Your task to perform on an android device: Go to CNN.com Image 0: 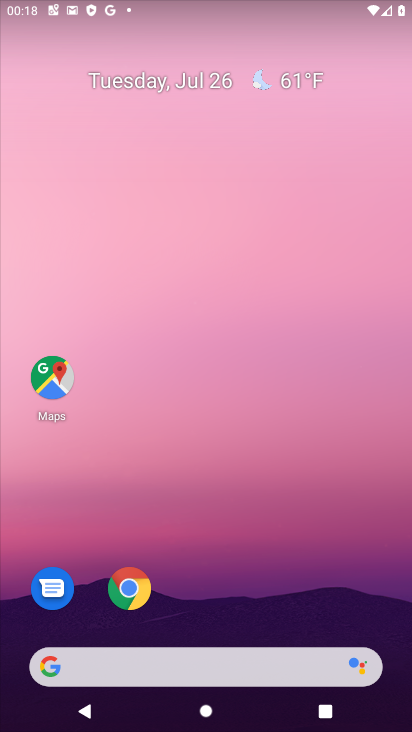
Step 0: drag from (218, 624) to (219, 76)
Your task to perform on an android device: Go to CNN.com Image 1: 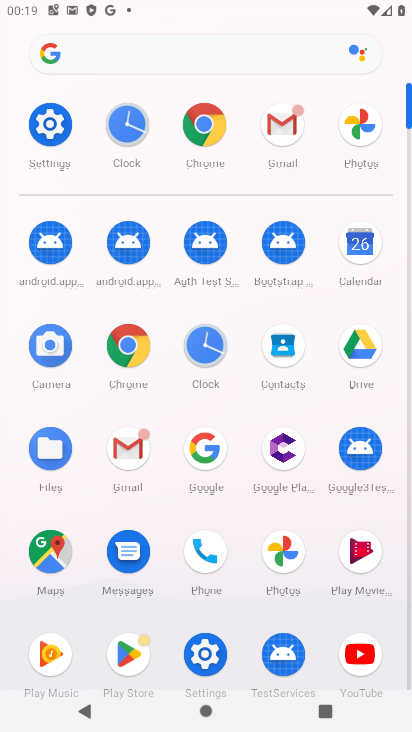
Step 1: click (202, 121)
Your task to perform on an android device: Go to CNN.com Image 2: 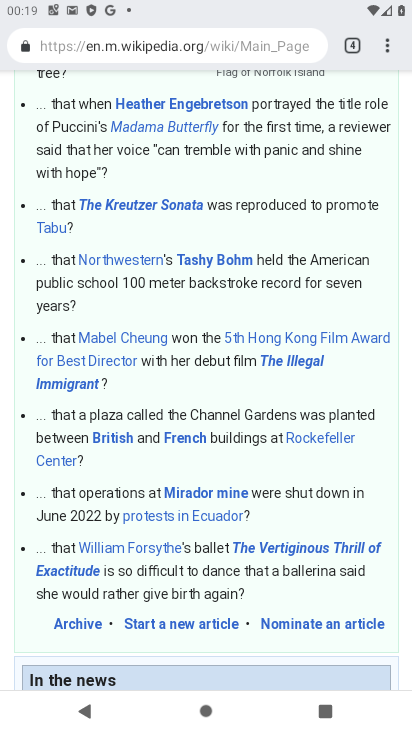
Step 2: click (346, 45)
Your task to perform on an android device: Go to CNN.com Image 3: 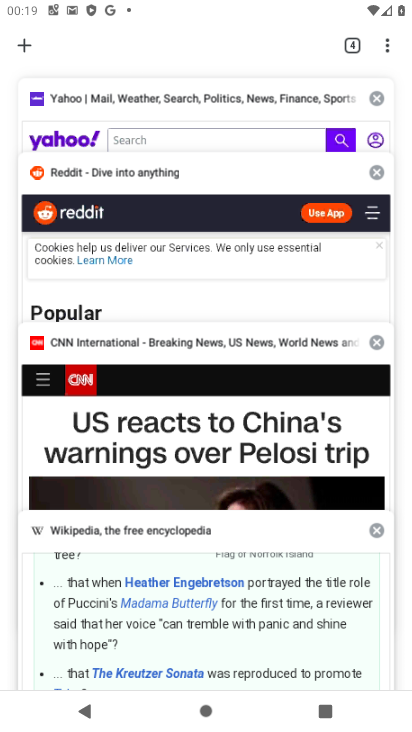
Step 3: click (24, 49)
Your task to perform on an android device: Go to CNN.com Image 4: 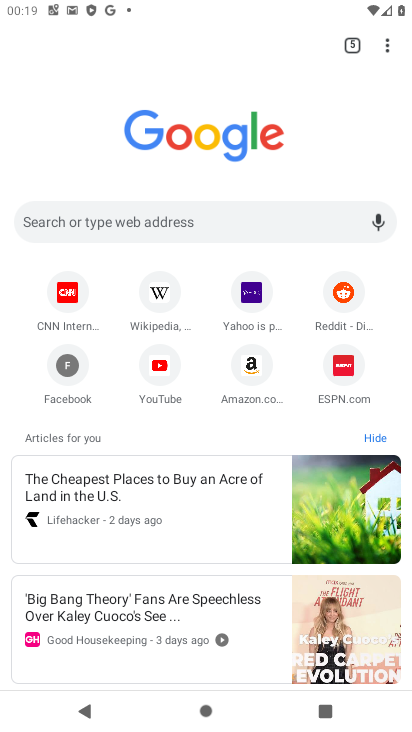
Step 4: click (68, 296)
Your task to perform on an android device: Go to CNN.com Image 5: 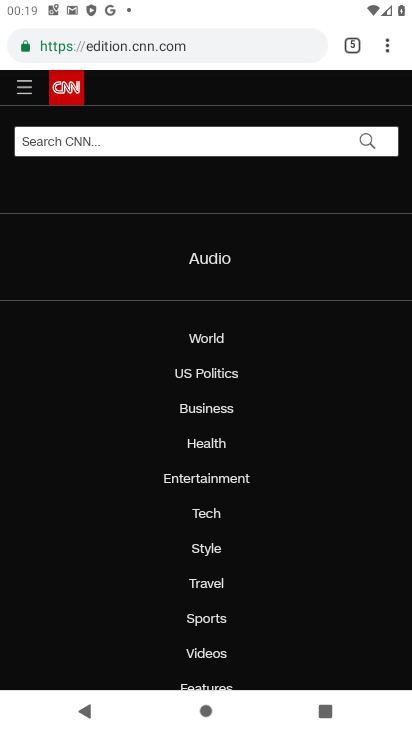
Step 5: task complete